Your task to perform on an android device: Search for "logitech g pro" on newegg, select the first entry, and add it to the cart. Image 0: 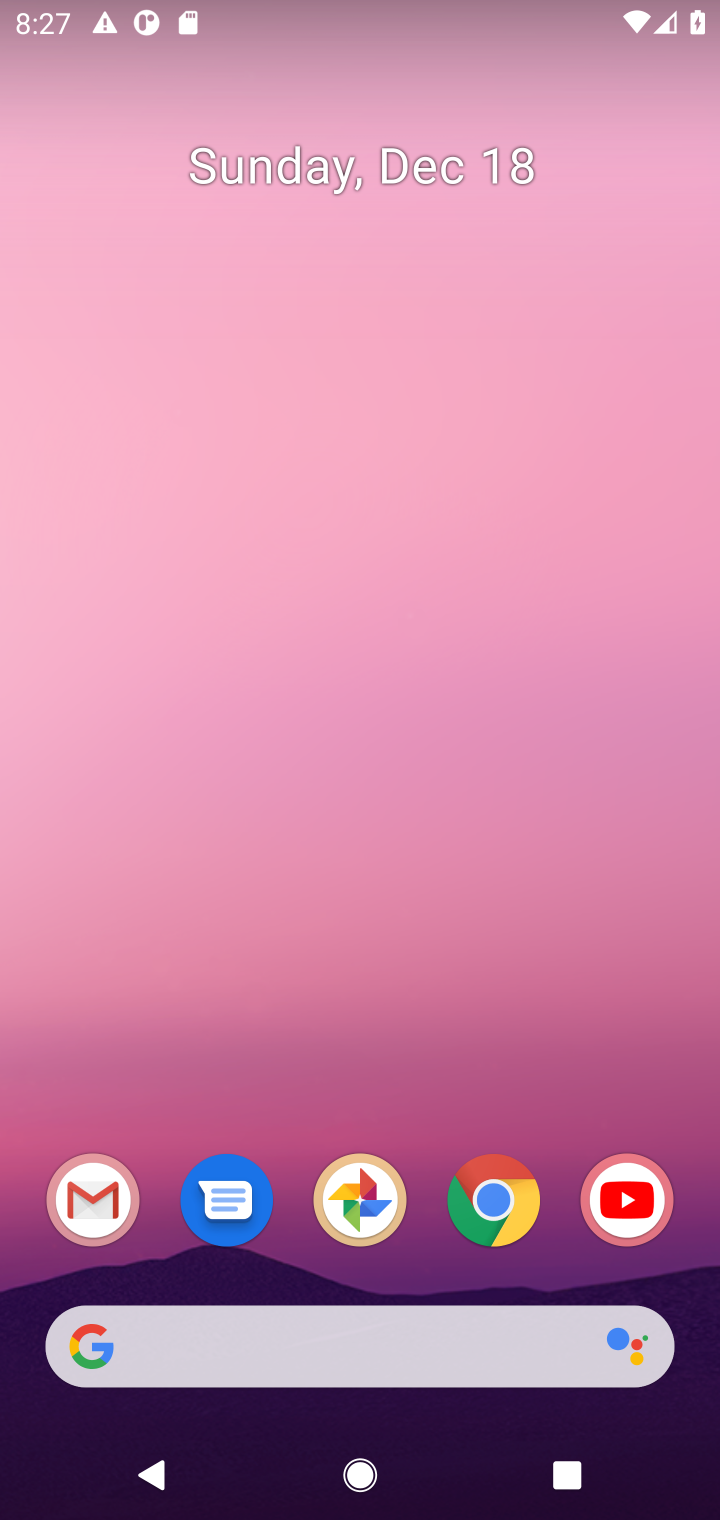
Step 0: click (492, 1212)
Your task to perform on an android device: Search for "logitech g pro" on newegg, select the first entry, and add it to the cart. Image 1: 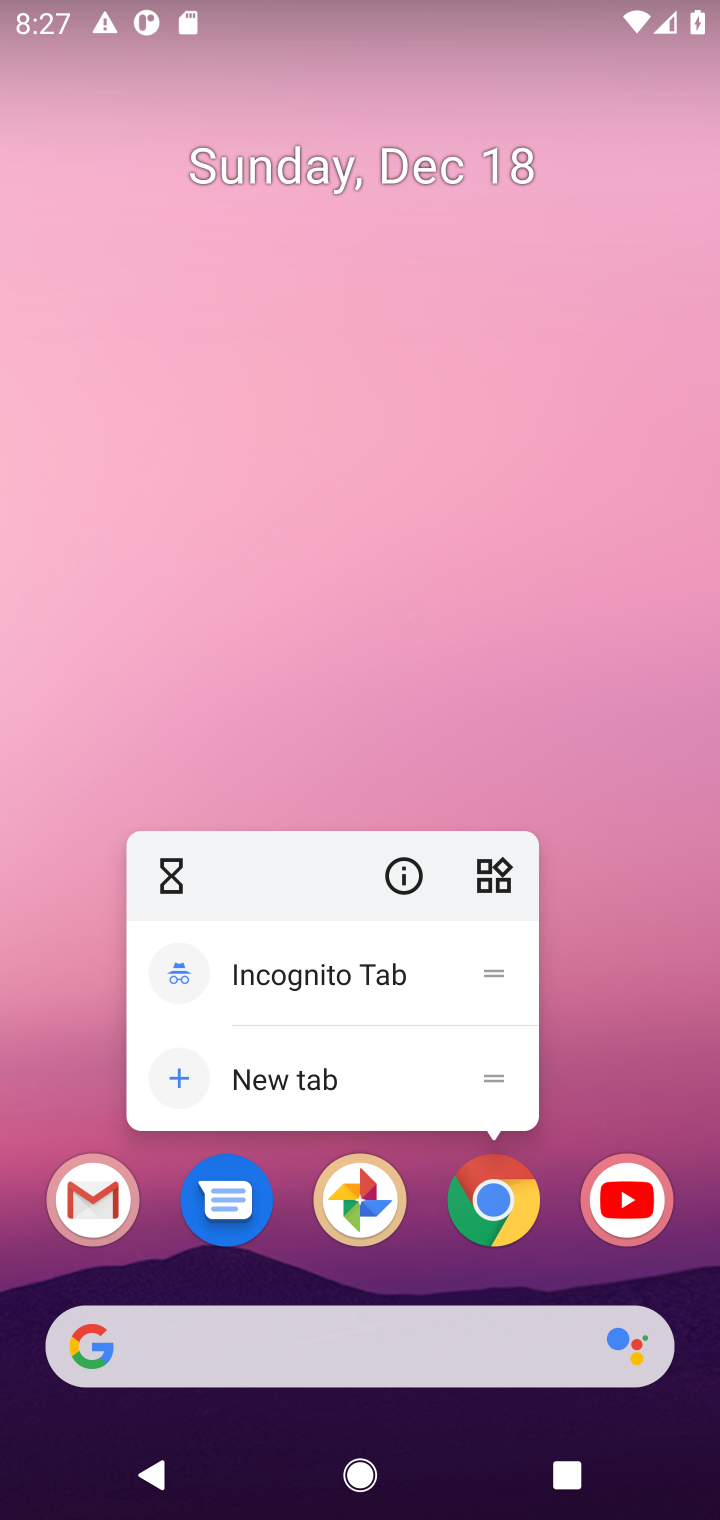
Step 1: click (492, 1212)
Your task to perform on an android device: Search for "logitech g pro" on newegg, select the first entry, and add it to the cart. Image 2: 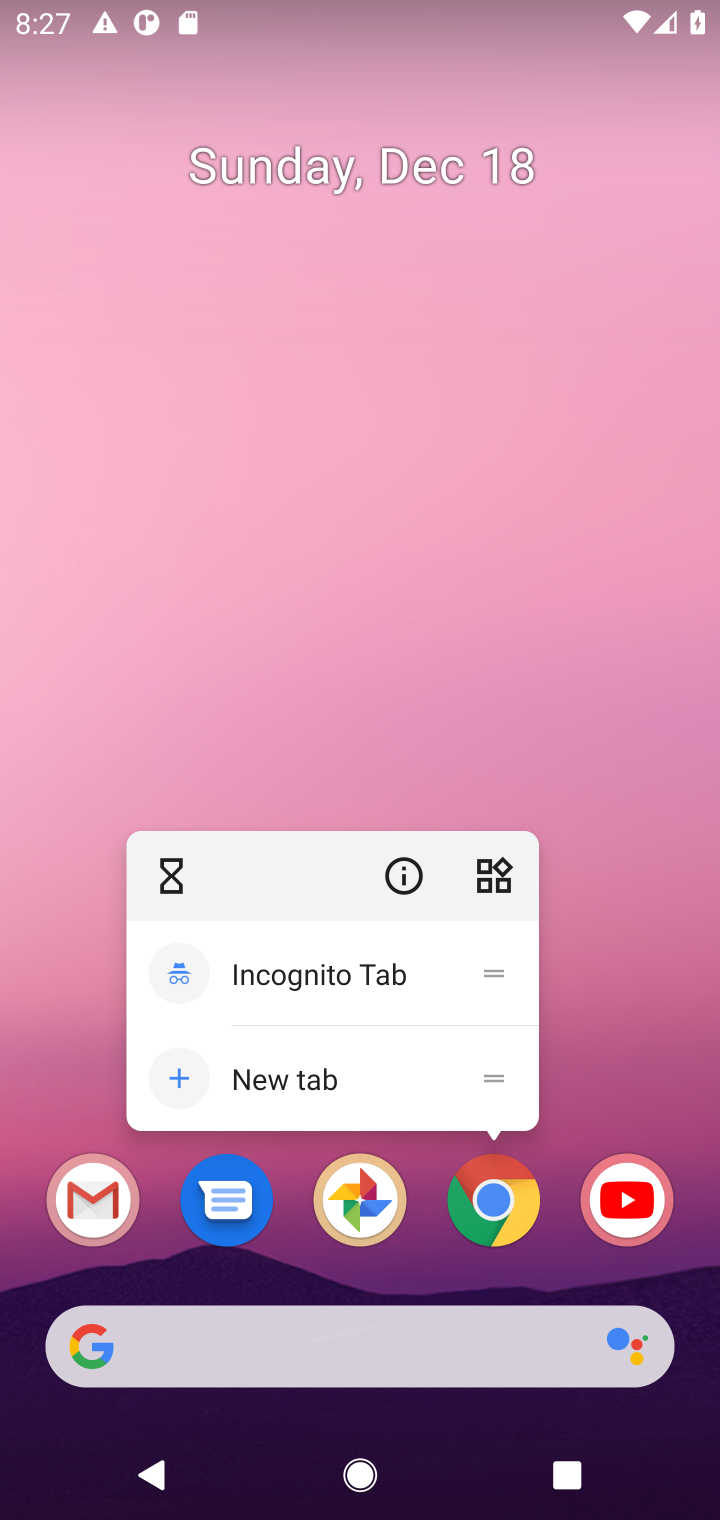
Step 2: click (492, 1212)
Your task to perform on an android device: Search for "logitech g pro" on newegg, select the first entry, and add it to the cart. Image 3: 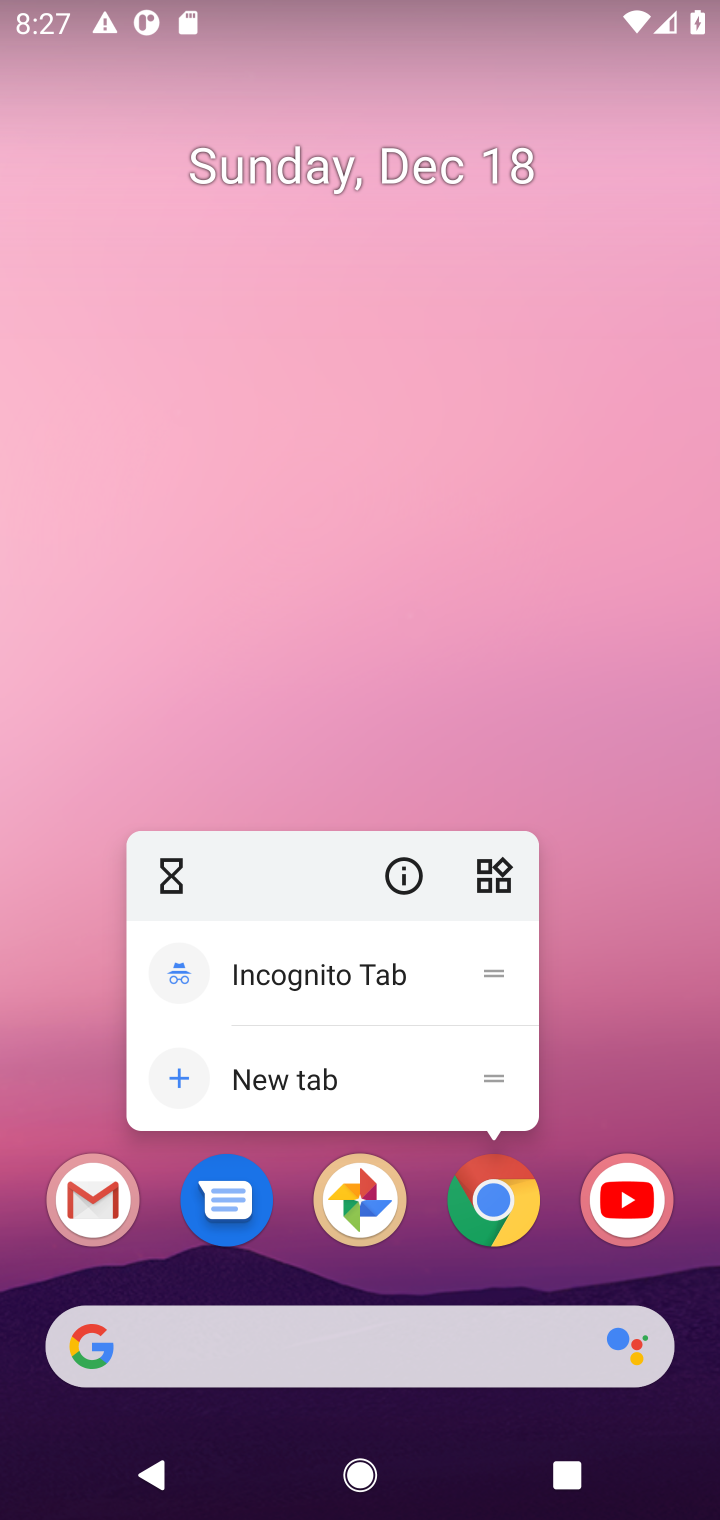
Step 3: click (492, 1212)
Your task to perform on an android device: Search for "logitech g pro" on newegg, select the first entry, and add it to the cart. Image 4: 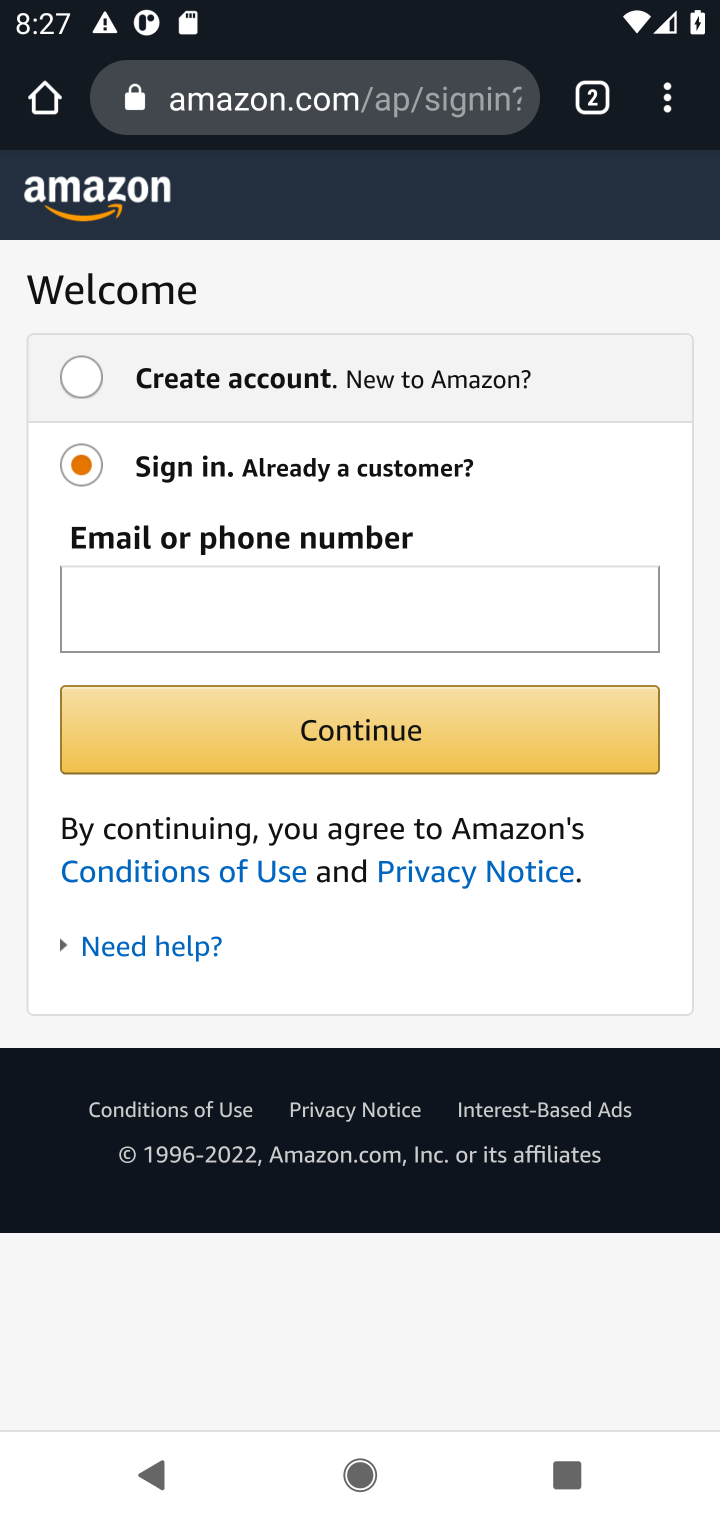
Step 4: click (262, 99)
Your task to perform on an android device: Search for "logitech g pro" on newegg, select the first entry, and add it to the cart. Image 5: 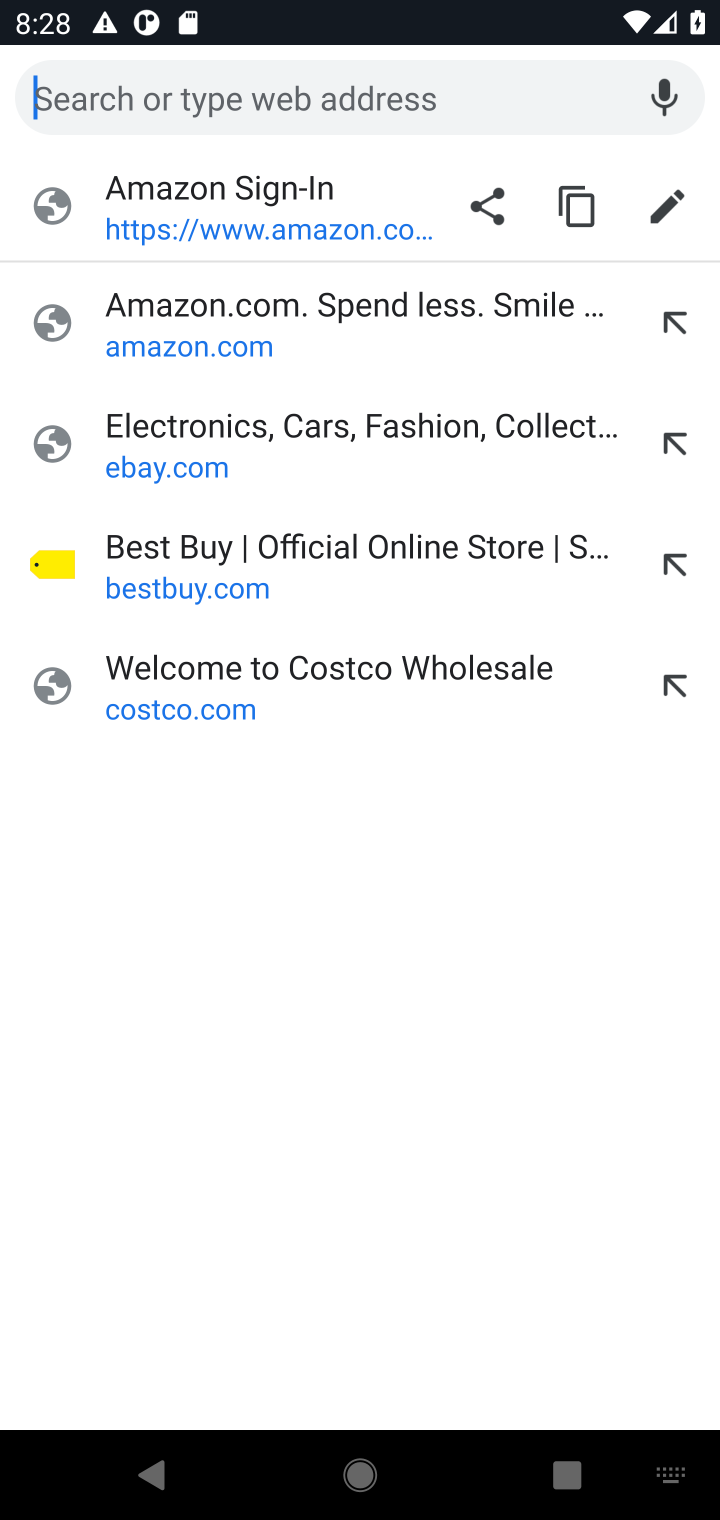
Step 5: type "newegg.com"
Your task to perform on an android device: Search for "logitech g pro" on newegg, select the first entry, and add it to the cart. Image 6: 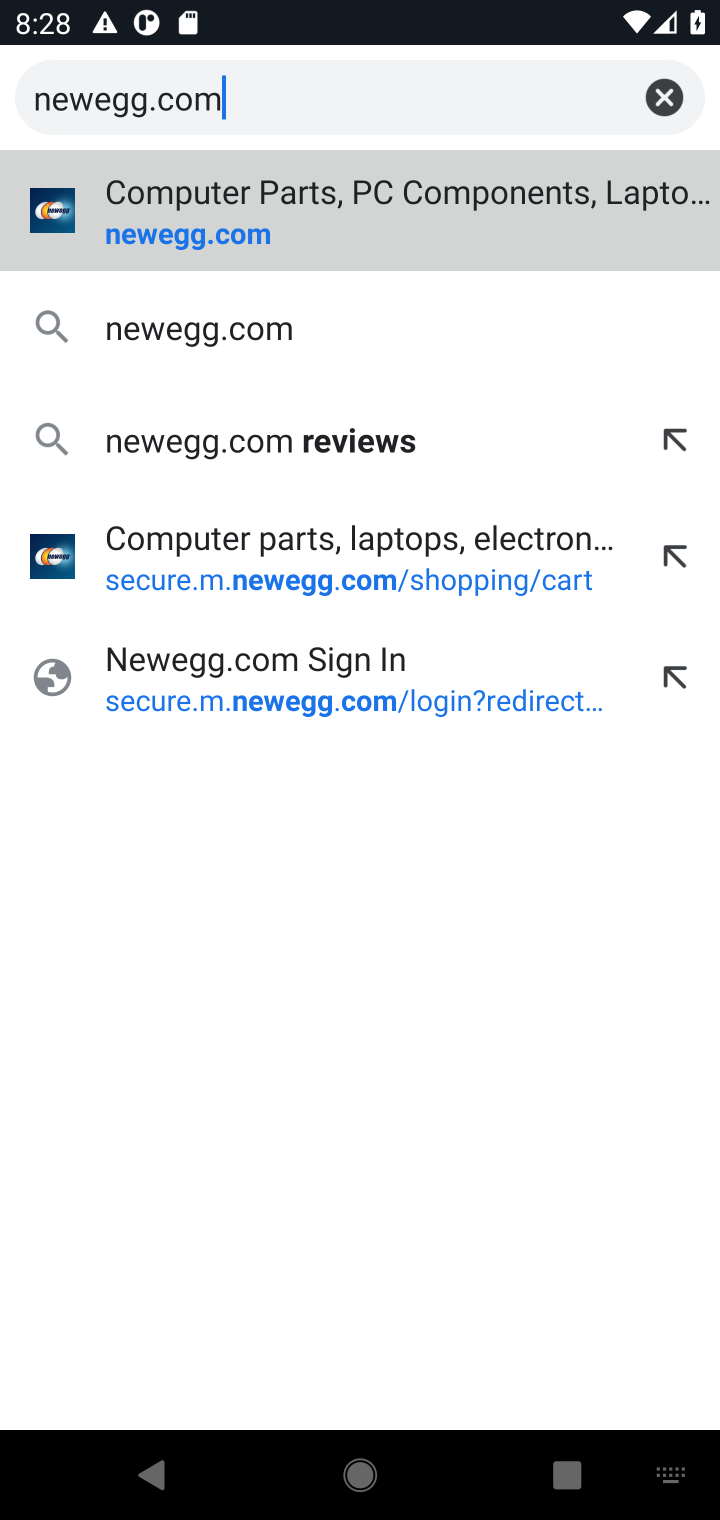
Step 6: click (201, 227)
Your task to perform on an android device: Search for "logitech g pro" on newegg, select the first entry, and add it to the cart. Image 7: 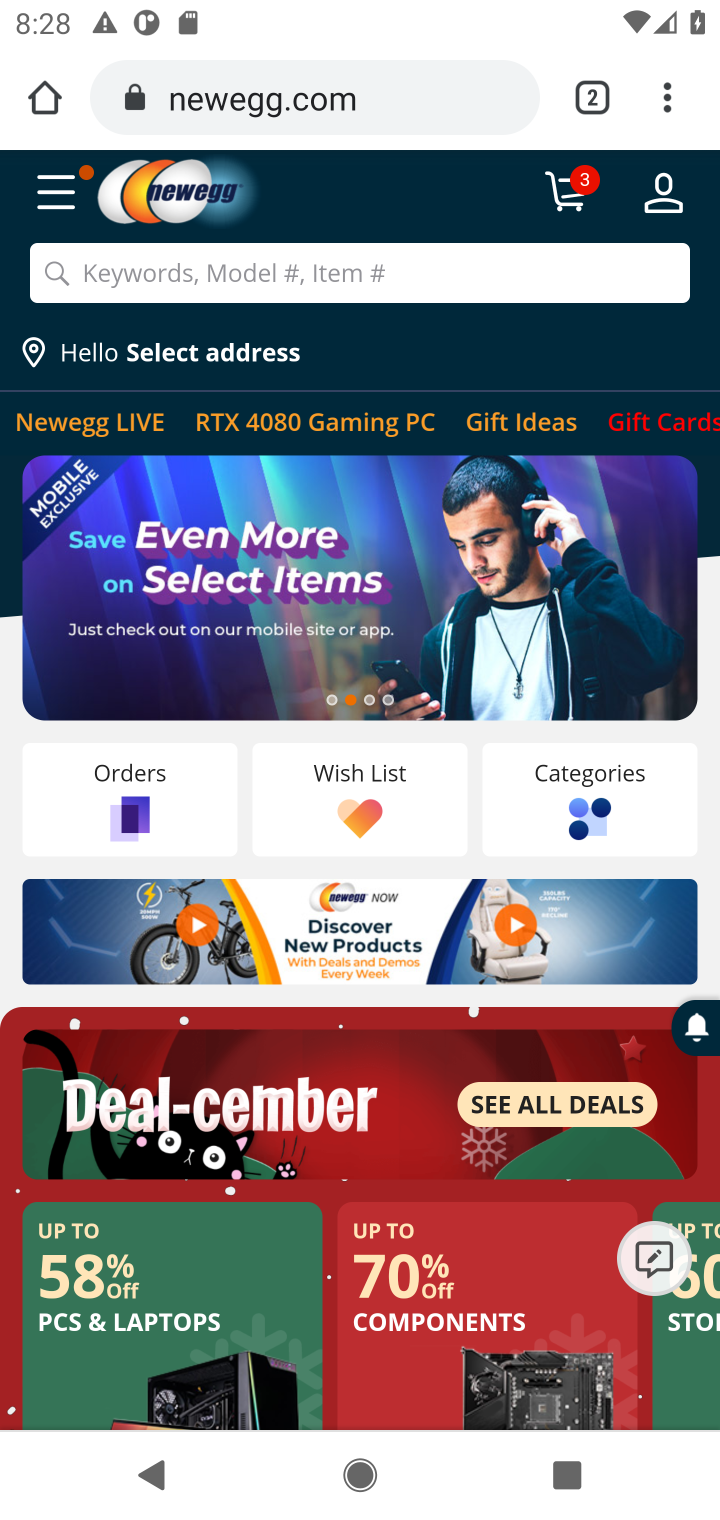
Step 7: click (227, 274)
Your task to perform on an android device: Search for "logitech g pro" on newegg, select the first entry, and add it to the cart. Image 8: 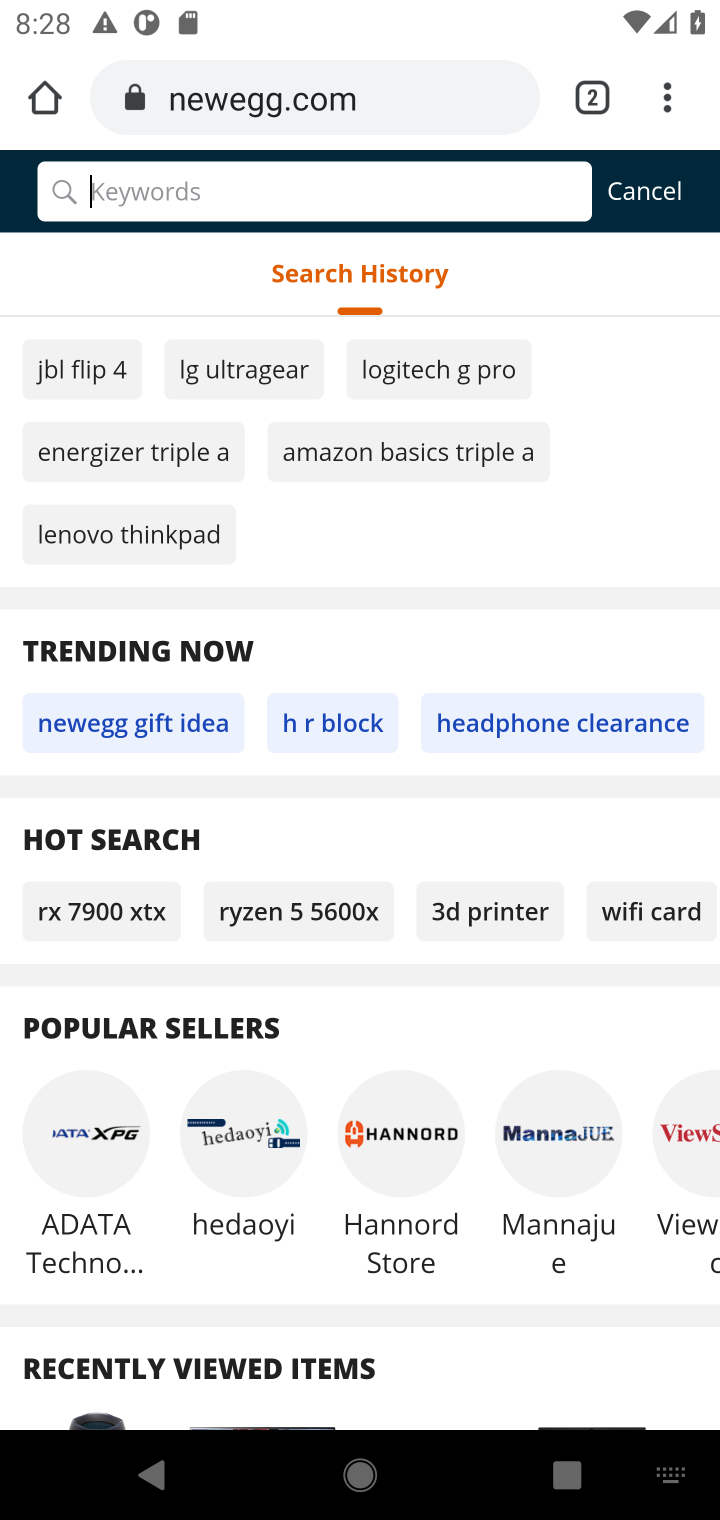
Step 8: type "logitech g pro"
Your task to perform on an android device: Search for "logitech g pro" on newegg, select the first entry, and add it to the cart. Image 9: 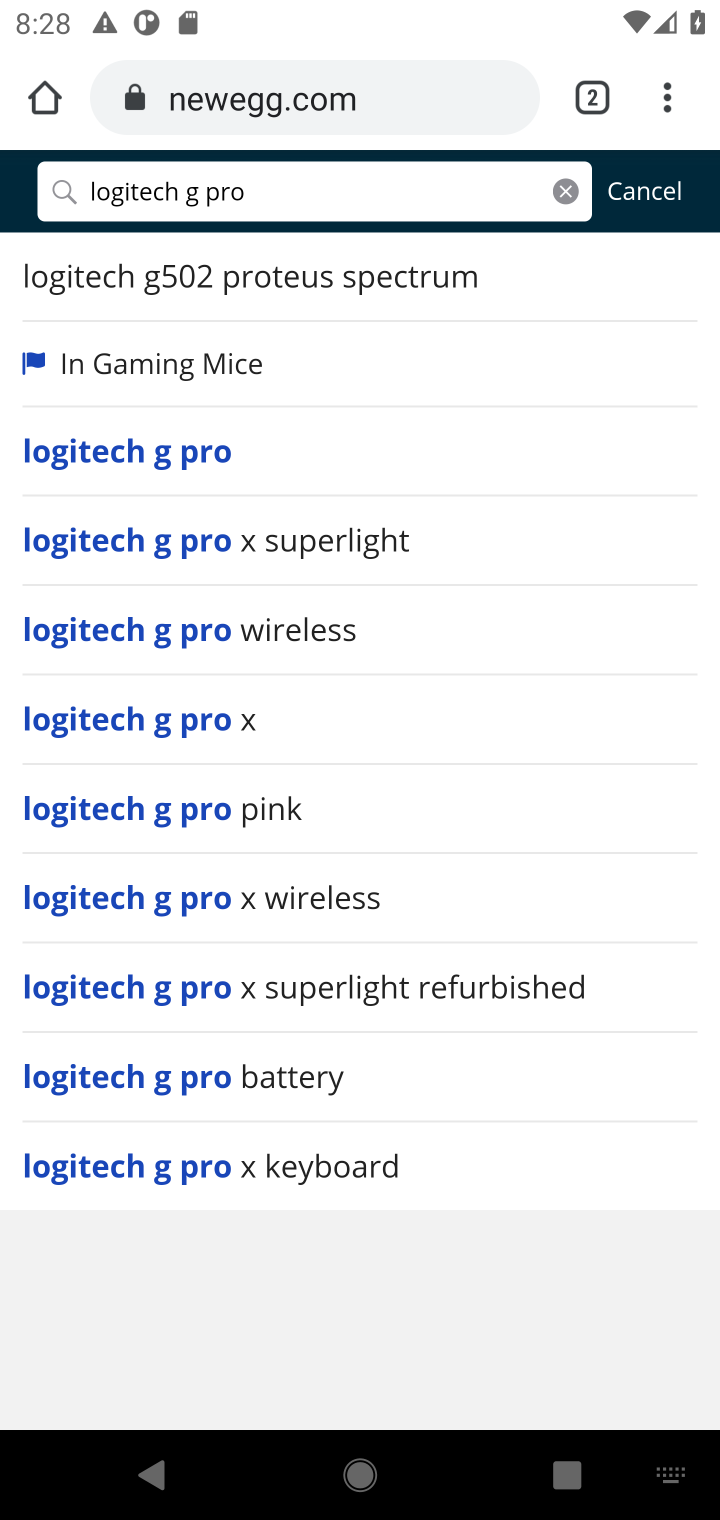
Step 9: click (108, 461)
Your task to perform on an android device: Search for "logitech g pro" on newegg, select the first entry, and add it to the cart. Image 10: 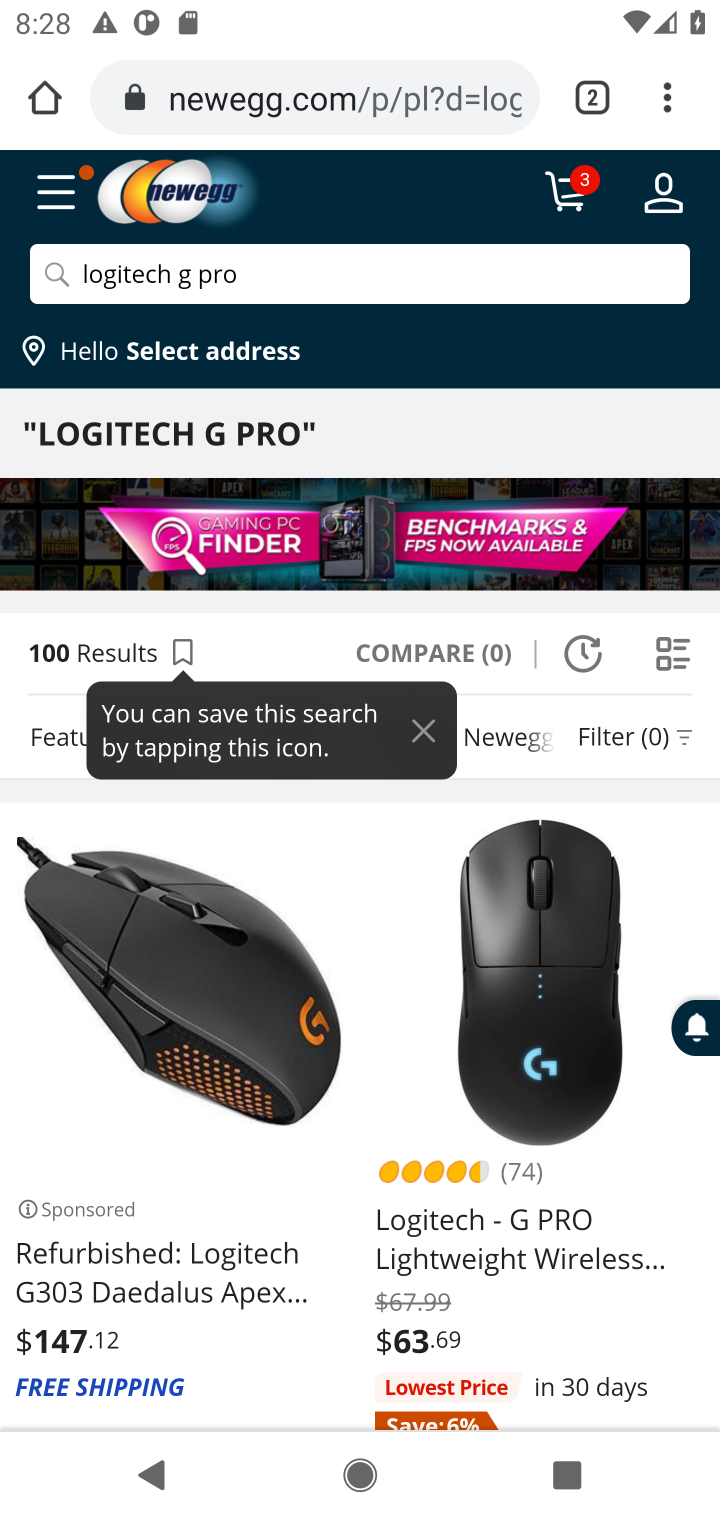
Step 10: task complete